Your task to perform on an android device: choose inbox layout in the gmail app Image 0: 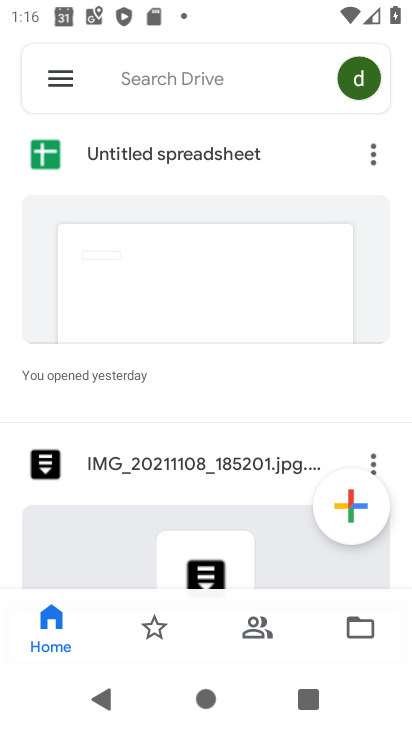
Step 0: press home button
Your task to perform on an android device: choose inbox layout in the gmail app Image 1: 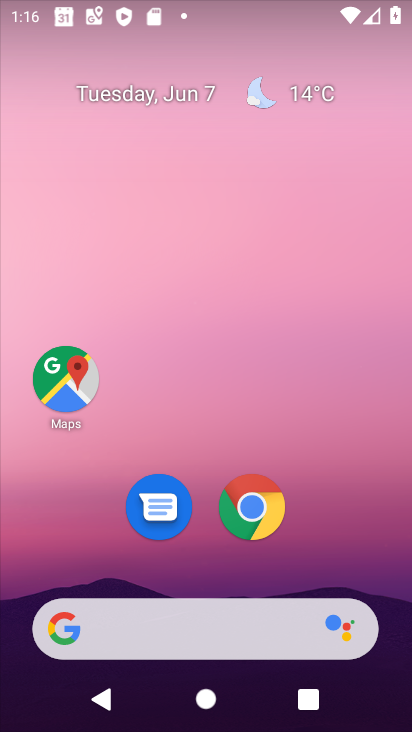
Step 1: drag from (399, 606) to (310, 90)
Your task to perform on an android device: choose inbox layout in the gmail app Image 2: 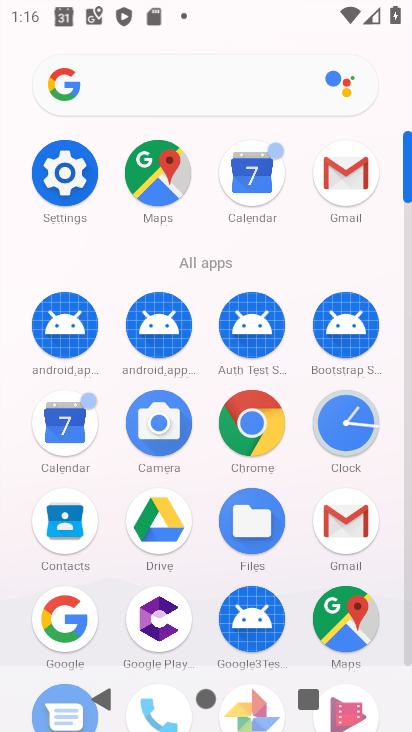
Step 2: click (409, 651)
Your task to perform on an android device: choose inbox layout in the gmail app Image 3: 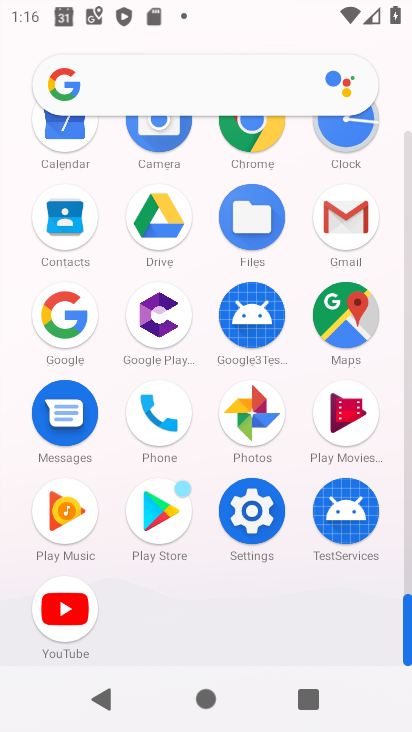
Step 3: click (347, 219)
Your task to perform on an android device: choose inbox layout in the gmail app Image 4: 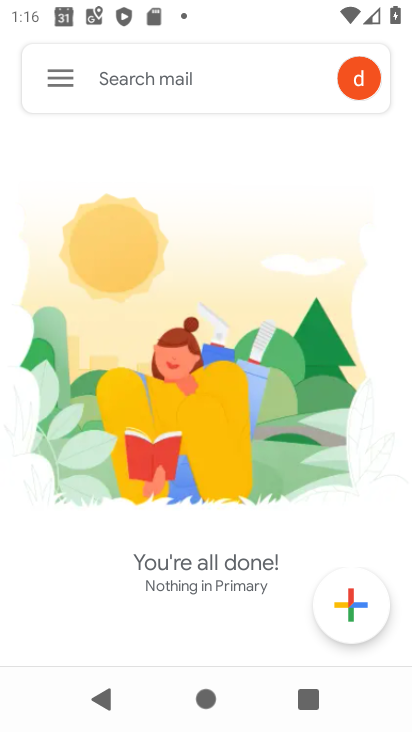
Step 4: click (56, 68)
Your task to perform on an android device: choose inbox layout in the gmail app Image 5: 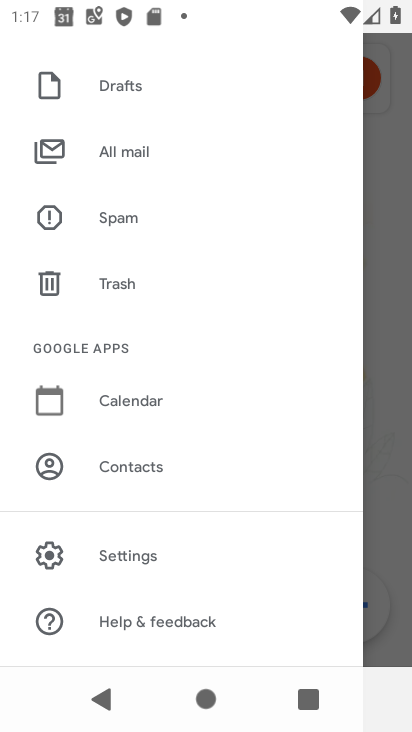
Step 5: click (132, 554)
Your task to perform on an android device: choose inbox layout in the gmail app Image 6: 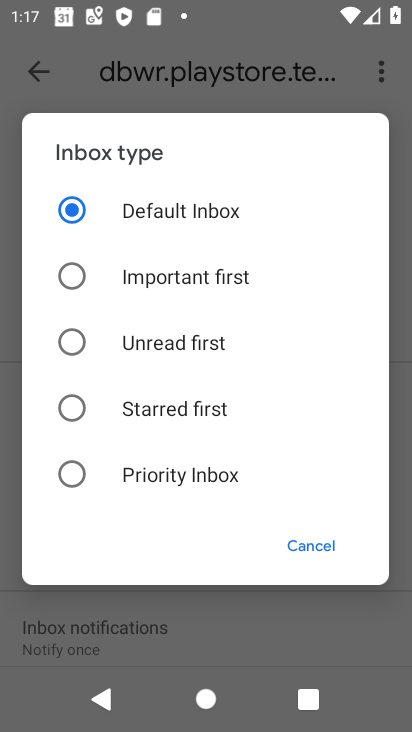
Step 6: click (73, 273)
Your task to perform on an android device: choose inbox layout in the gmail app Image 7: 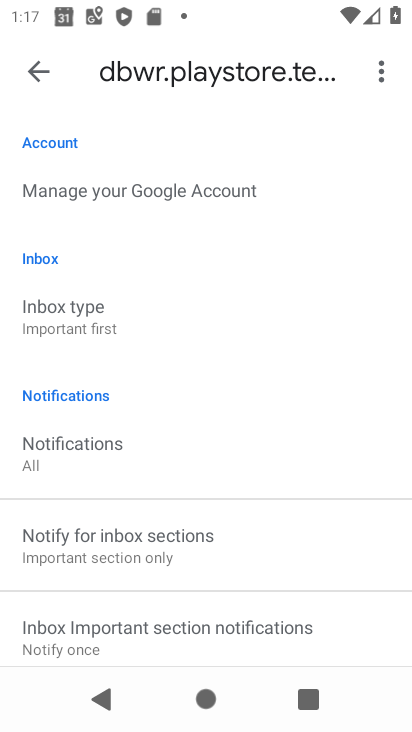
Step 7: task complete